Your task to perform on an android device: See recent photos Image 0: 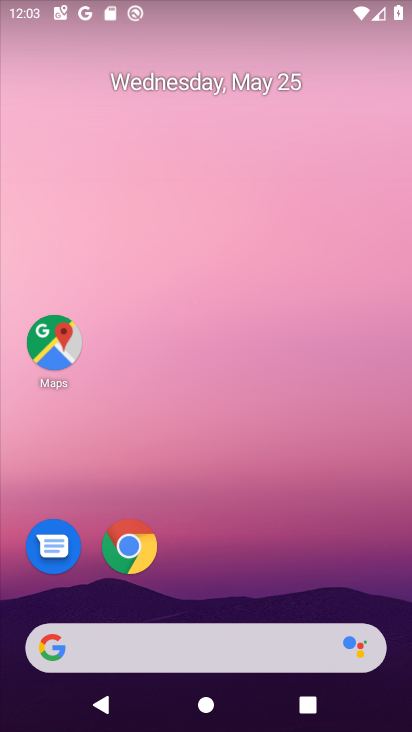
Step 0: drag from (219, 578) to (284, 57)
Your task to perform on an android device: See recent photos Image 1: 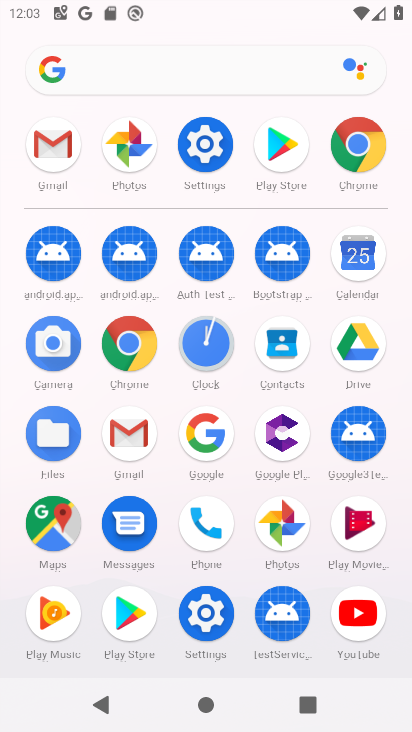
Step 1: click (279, 533)
Your task to perform on an android device: See recent photos Image 2: 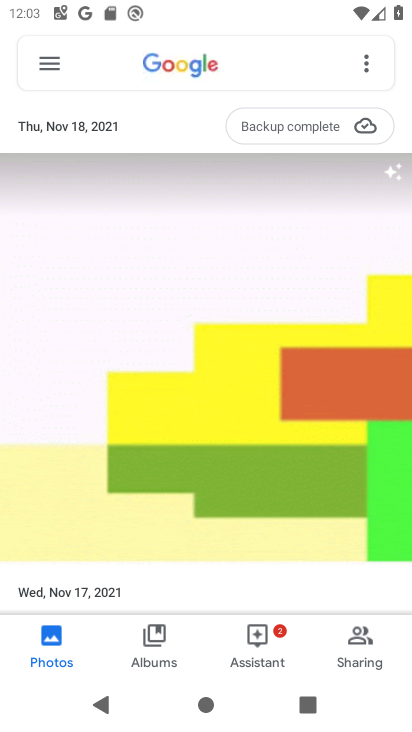
Step 2: task complete